Your task to perform on an android device: add a contact Image 0: 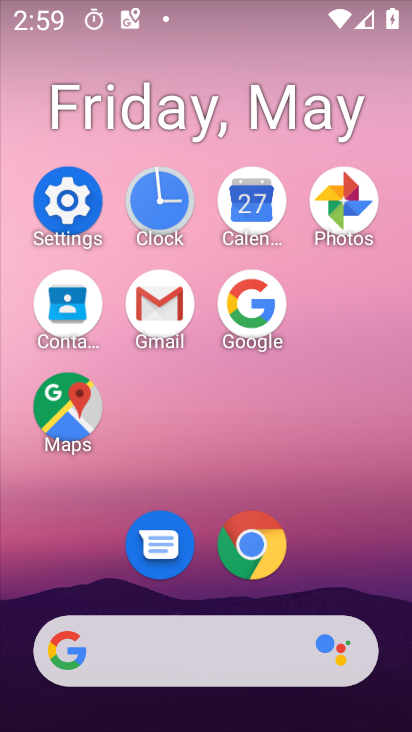
Step 0: click (65, 321)
Your task to perform on an android device: add a contact Image 1: 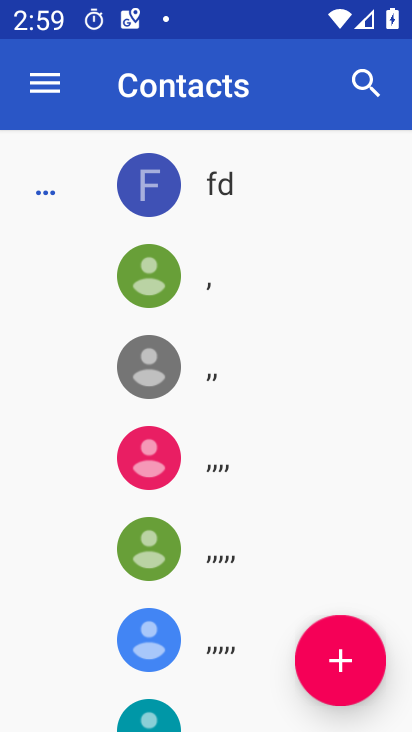
Step 1: click (357, 652)
Your task to perform on an android device: add a contact Image 2: 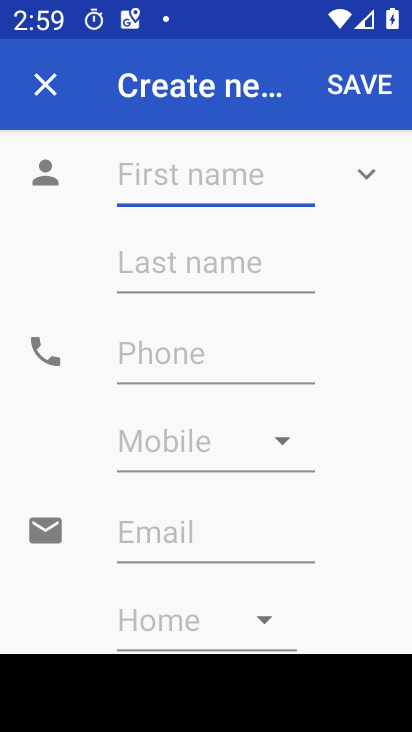
Step 2: type "uuyyt"
Your task to perform on an android device: add a contact Image 3: 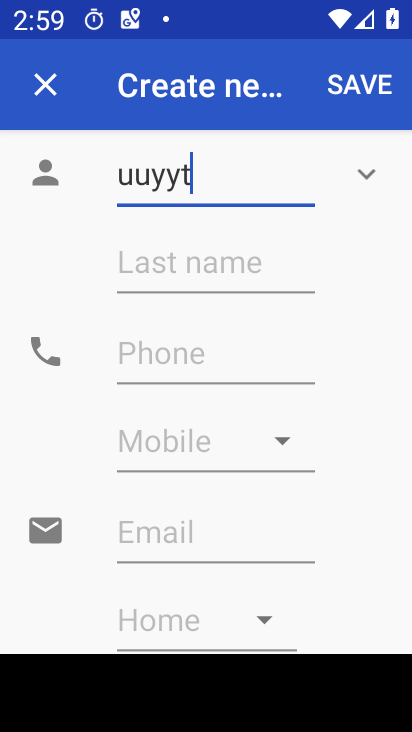
Step 3: click (203, 347)
Your task to perform on an android device: add a contact Image 4: 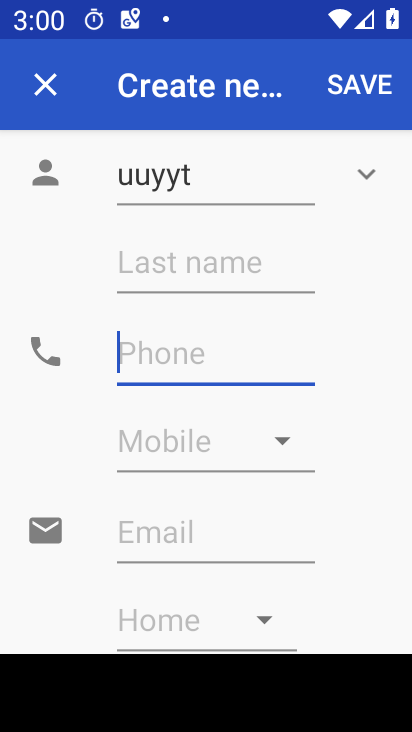
Step 4: type "9988776654"
Your task to perform on an android device: add a contact Image 5: 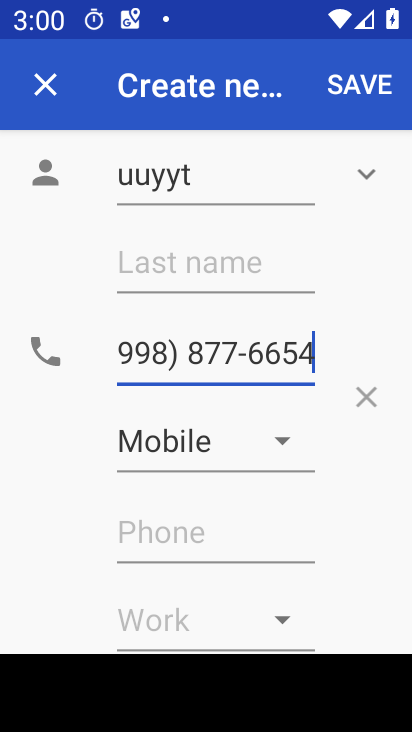
Step 5: click (363, 86)
Your task to perform on an android device: add a contact Image 6: 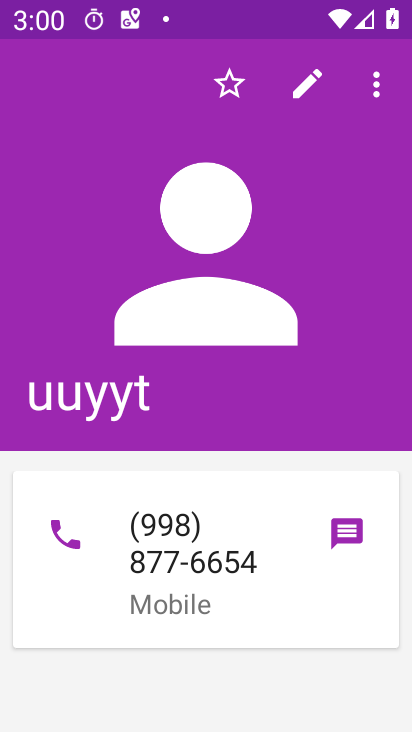
Step 6: task complete